Your task to perform on an android device: Open CNN.com Image 0: 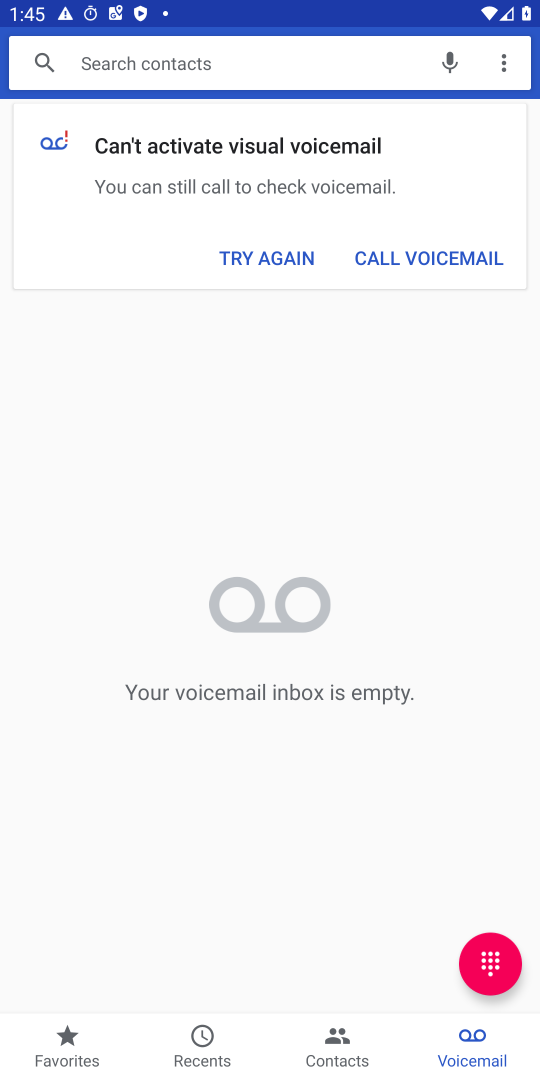
Step 0: press home button
Your task to perform on an android device: Open CNN.com Image 1: 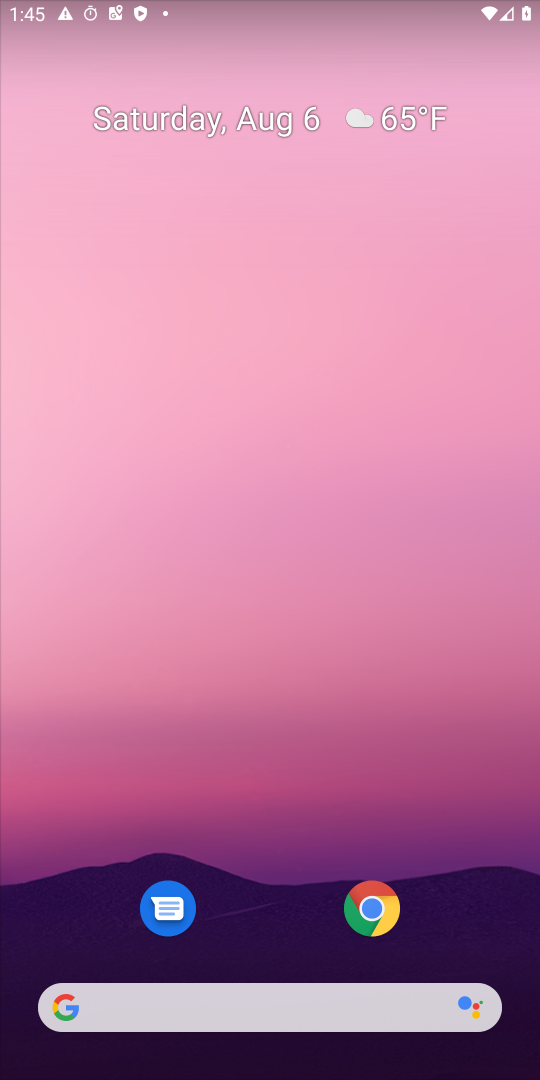
Step 1: click (375, 896)
Your task to perform on an android device: Open CNN.com Image 2: 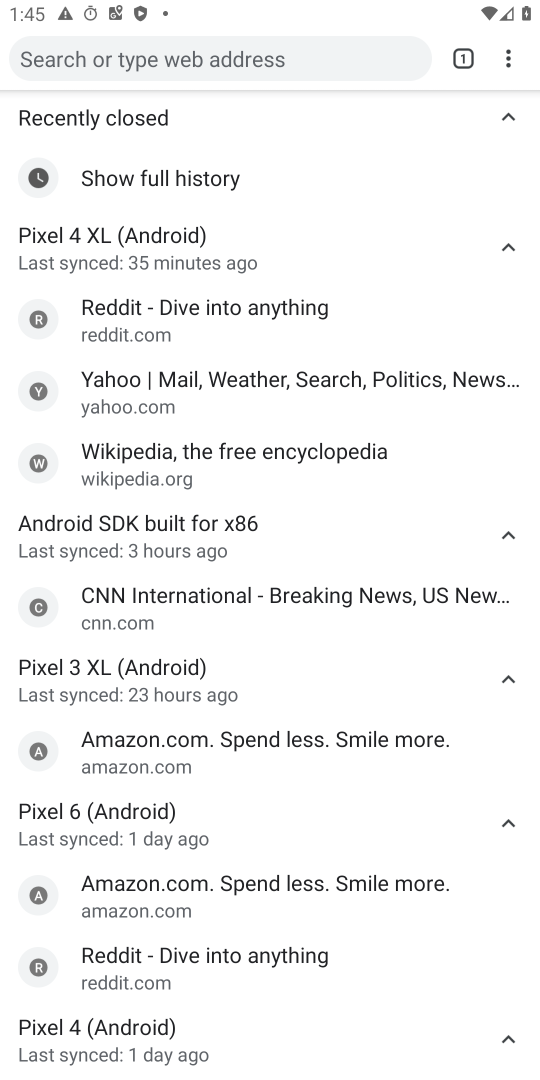
Step 2: click (279, 52)
Your task to perform on an android device: Open CNN.com Image 3: 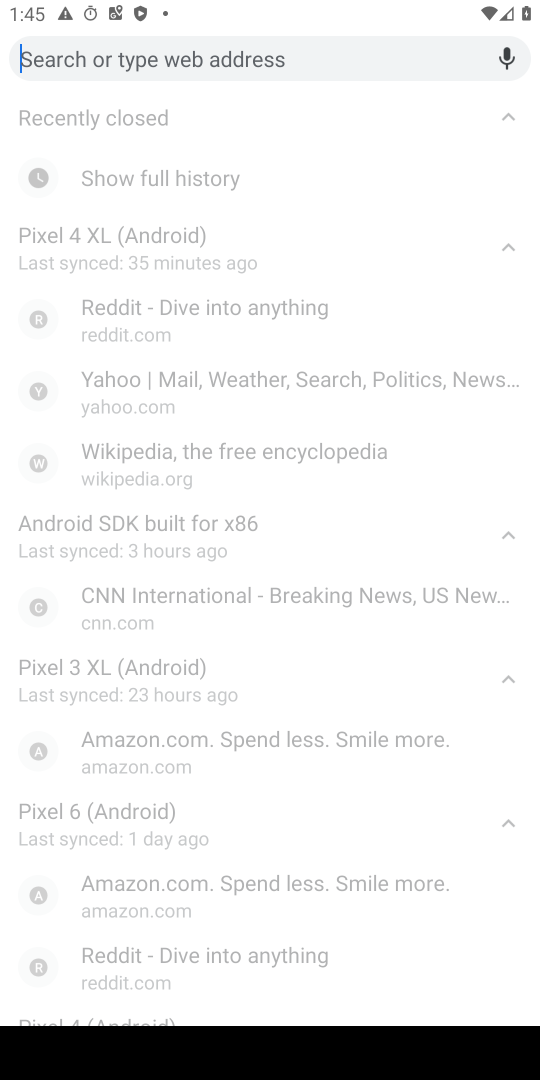
Step 3: type "cnn.com"
Your task to perform on an android device: Open CNN.com Image 4: 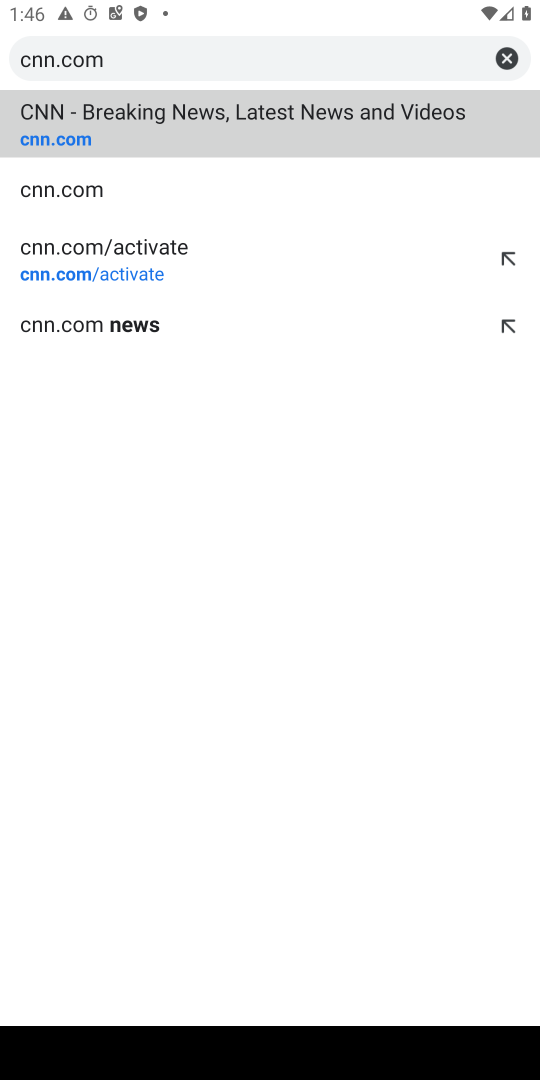
Step 4: click (279, 120)
Your task to perform on an android device: Open CNN.com Image 5: 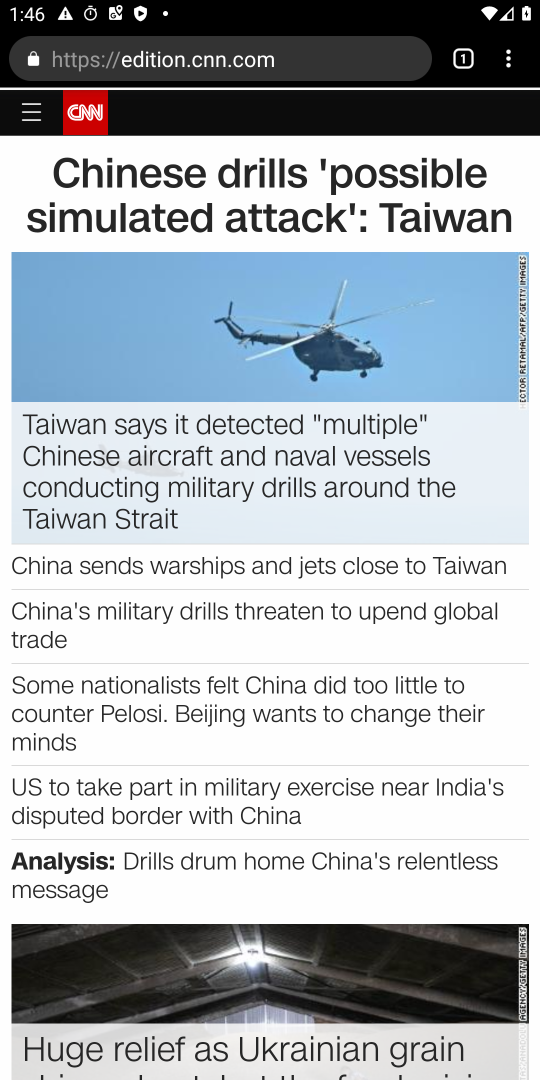
Step 5: task complete